Your task to perform on an android device: turn pop-ups on in chrome Image 0: 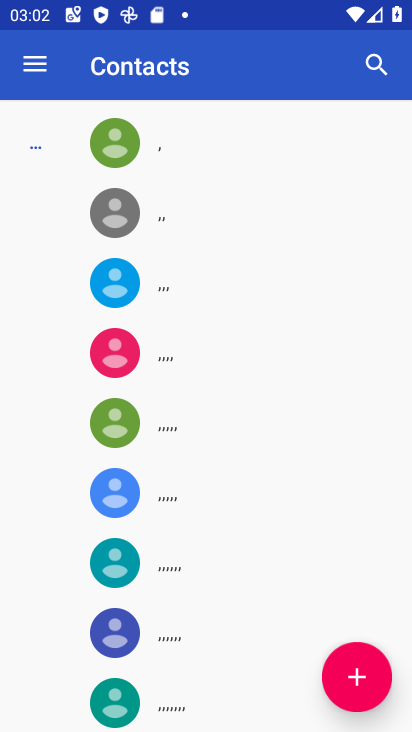
Step 0: press home button
Your task to perform on an android device: turn pop-ups on in chrome Image 1: 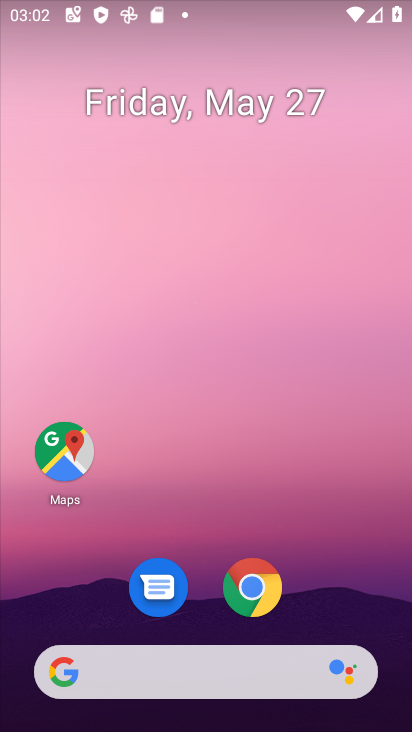
Step 1: click (246, 601)
Your task to perform on an android device: turn pop-ups on in chrome Image 2: 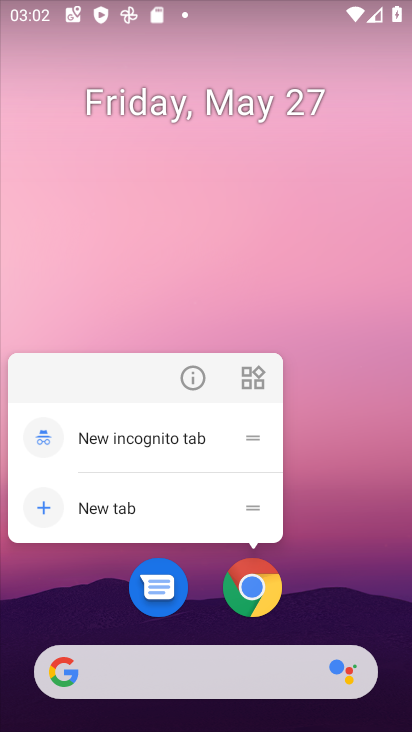
Step 2: click (257, 584)
Your task to perform on an android device: turn pop-ups on in chrome Image 3: 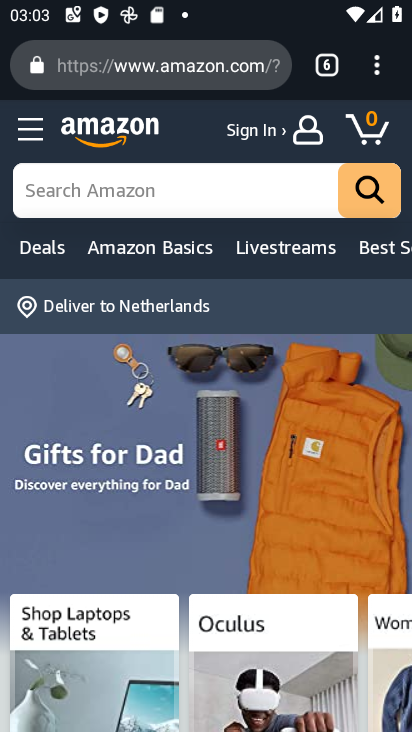
Step 3: click (379, 61)
Your task to perform on an android device: turn pop-ups on in chrome Image 4: 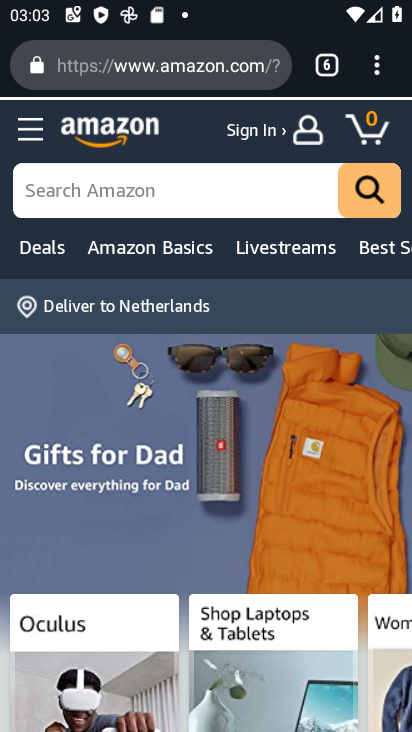
Step 4: click (380, 53)
Your task to perform on an android device: turn pop-ups on in chrome Image 5: 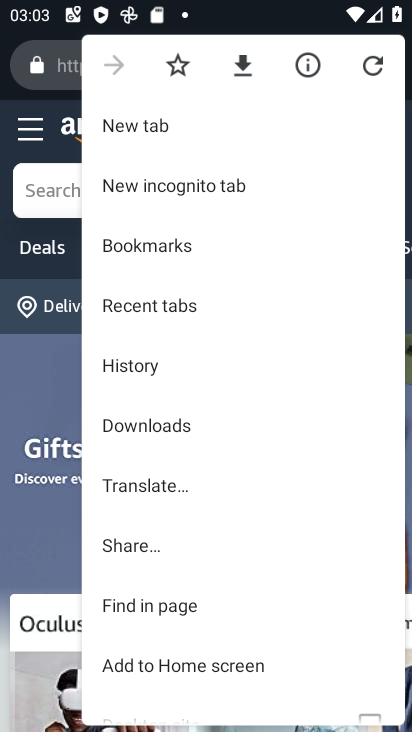
Step 5: drag from (315, 623) to (321, 304)
Your task to perform on an android device: turn pop-ups on in chrome Image 6: 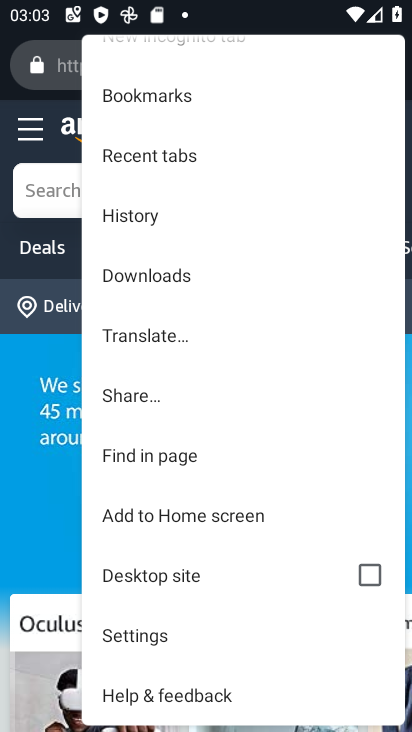
Step 6: click (137, 634)
Your task to perform on an android device: turn pop-ups on in chrome Image 7: 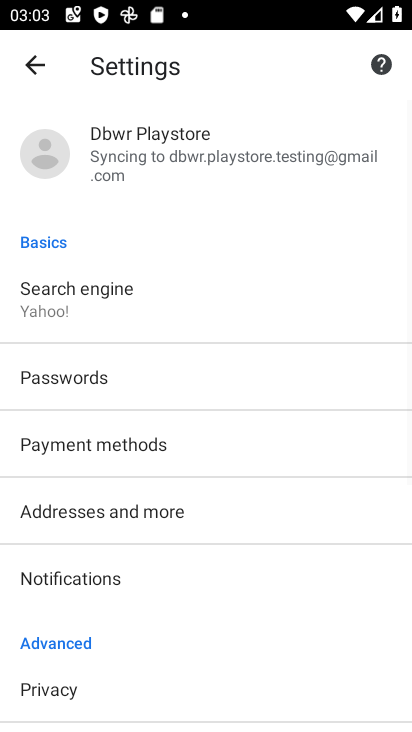
Step 7: drag from (269, 639) to (269, 335)
Your task to perform on an android device: turn pop-ups on in chrome Image 8: 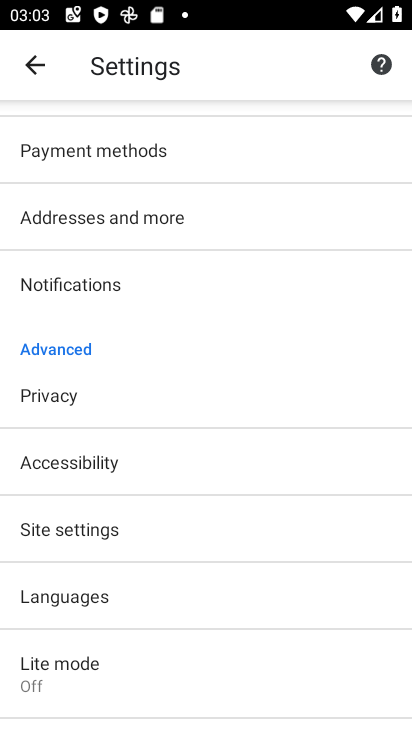
Step 8: click (114, 532)
Your task to perform on an android device: turn pop-ups on in chrome Image 9: 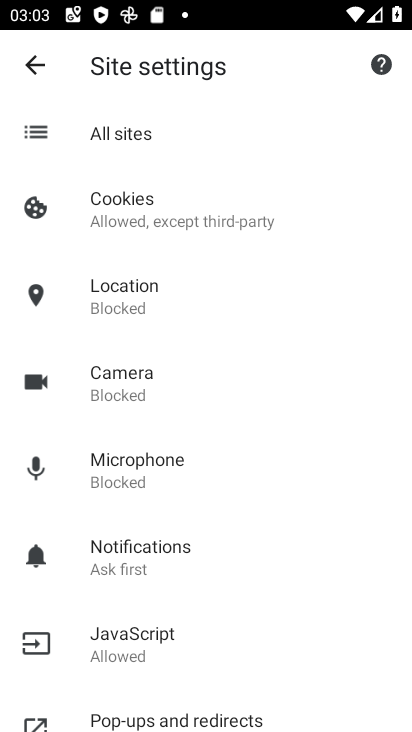
Step 9: drag from (325, 650) to (291, 125)
Your task to perform on an android device: turn pop-ups on in chrome Image 10: 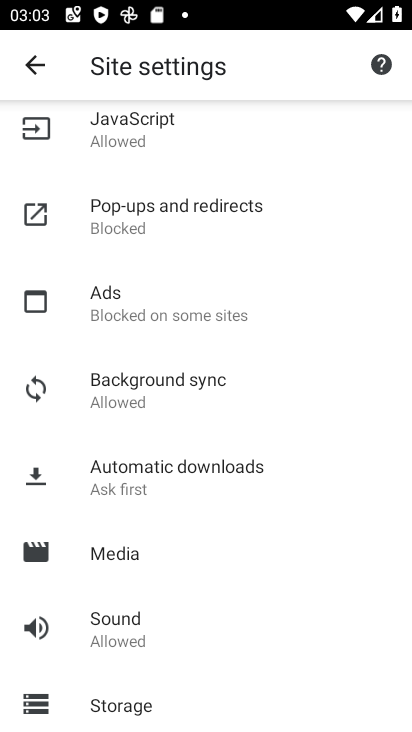
Step 10: drag from (298, 684) to (312, 244)
Your task to perform on an android device: turn pop-ups on in chrome Image 11: 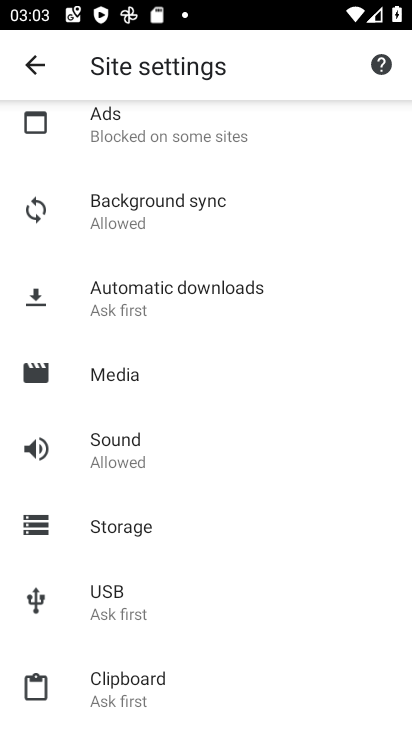
Step 11: drag from (326, 298) to (298, 595)
Your task to perform on an android device: turn pop-ups on in chrome Image 12: 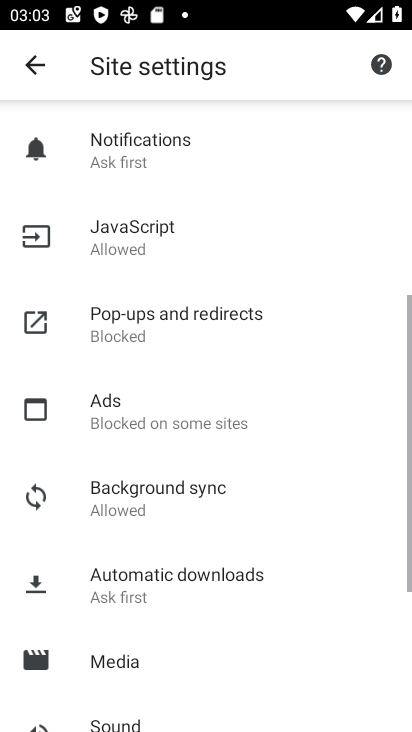
Step 12: click (217, 317)
Your task to perform on an android device: turn pop-ups on in chrome Image 13: 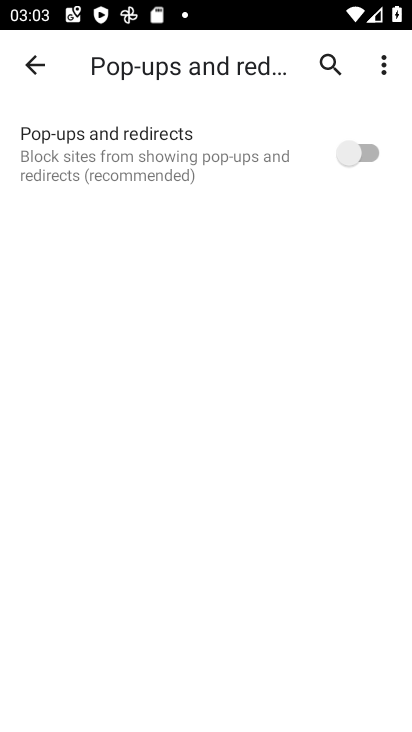
Step 13: click (374, 152)
Your task to perform on an android device: turn pop-ups on in chrome Image 14: 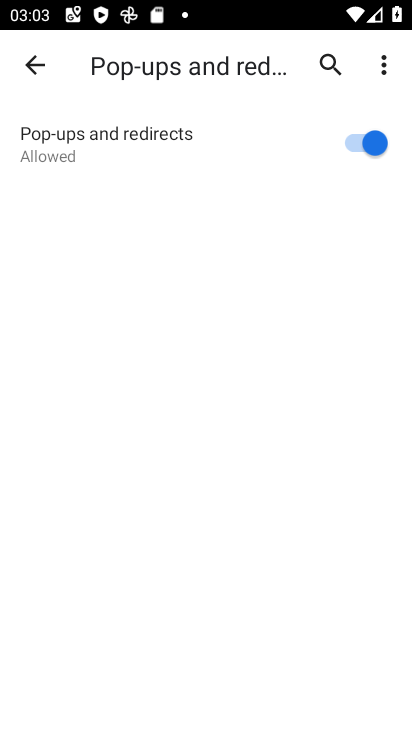
Step 14: task complete